Your task to perform on an android device: Go to Google maps Image 0: 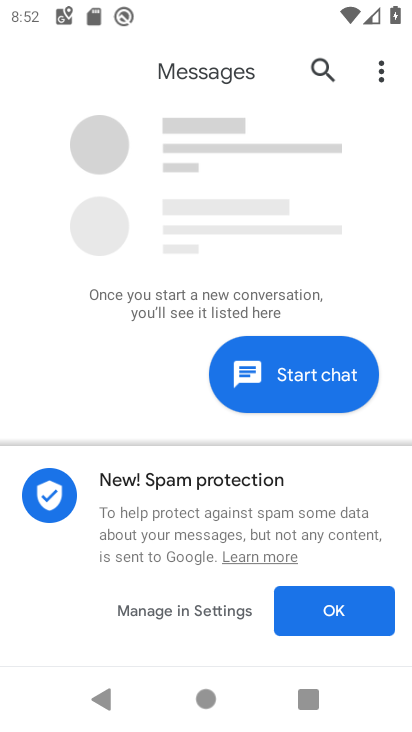
Step 0: press back button
Your task to perform on an android device: Go to Google maps Image 1: 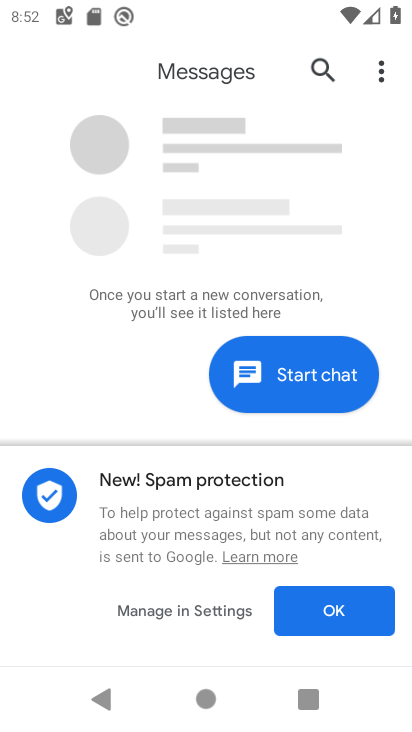
Step 1: press back button
Your task to perform on an android device: Go to Google maps Image 2: 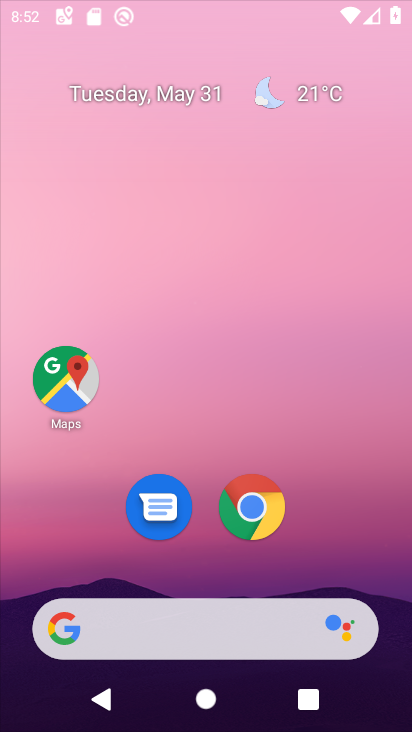
Step 2: press back button
Your task to perform on an android device: Go to Google maps Image 3: 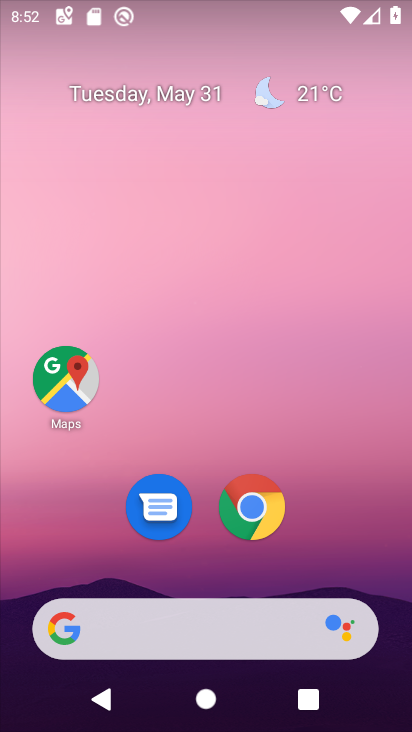
Step 3: drag from (253, 669) to (123, 36)
Your task to perform on an android device: Go to Google maps Image 4: 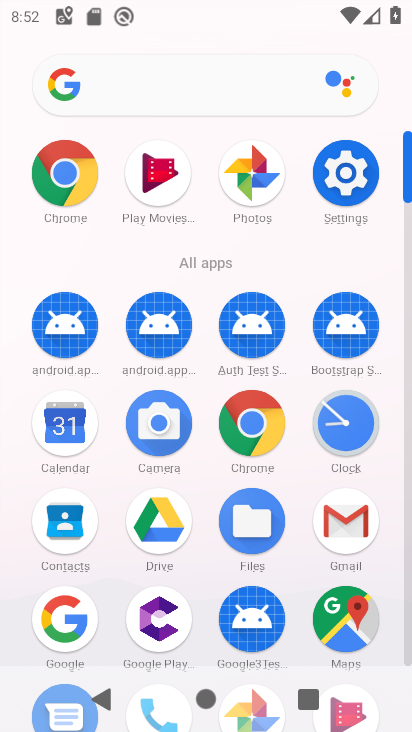
Step 4: click (345, 610)
Your task to perform on an android device: Go to Google maps Image 5: 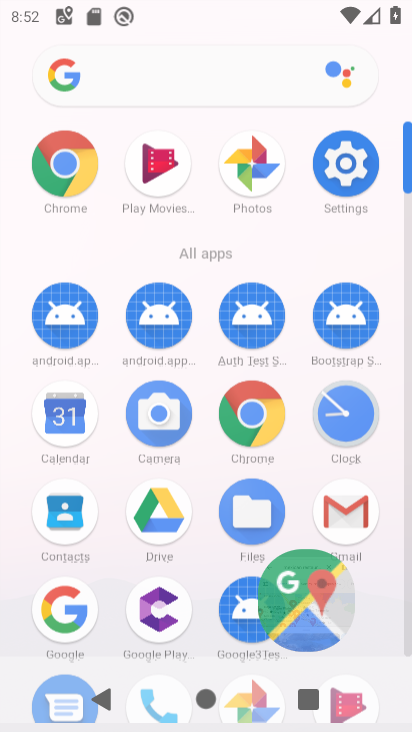
Step 5: click (352, 625)
Your task to perform on an android device: Go to Google maps Image 6: 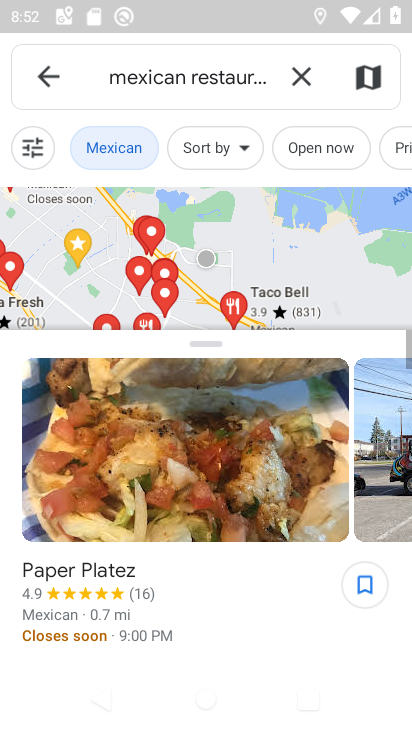
Step 6: click (290, 70)
Your task to perform on an android device: Go to Google maps Image 7: 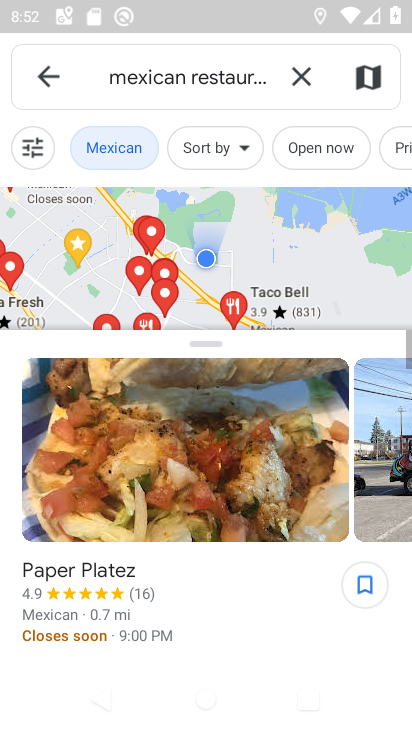
Step 7: click (290, 70)
Your task to perform on an android device: Go to Google maps Image 8: 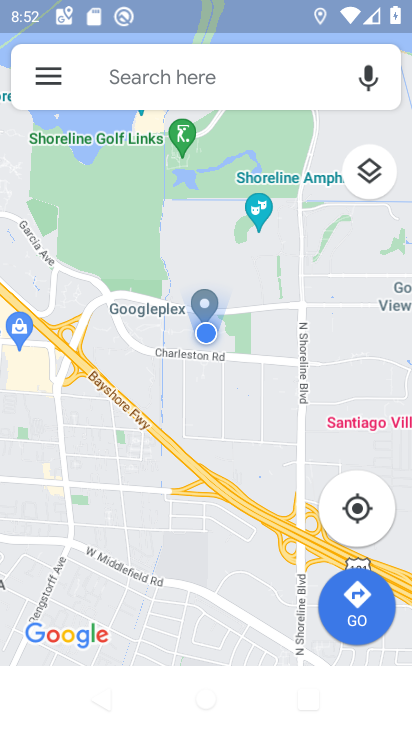
Step 8: task complete